Your task to perform on an android device: turn smart compose on in the gmail app Image 0: 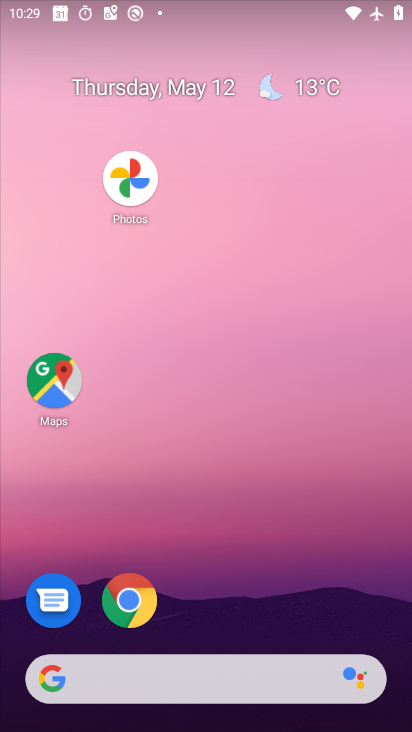
Step 0: drag from (329, 637) to (238, 129)
Your task to perform on an android device: turn smart compose on in the gmail app Image 1: 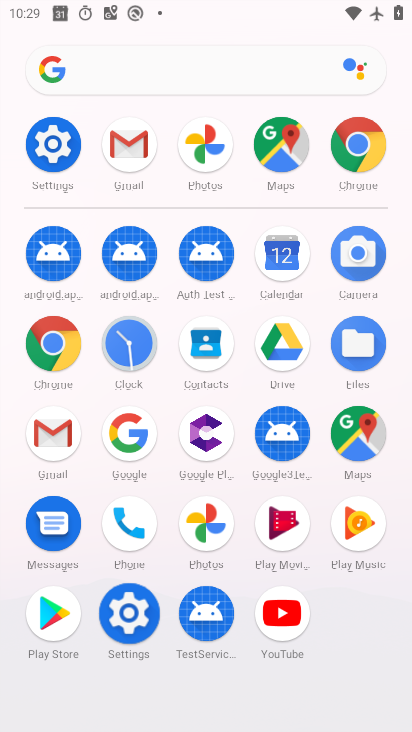
Step 1: click (49, 431)
Your task to perform on an android device: turn smart compose on in the gmail app Image 2: 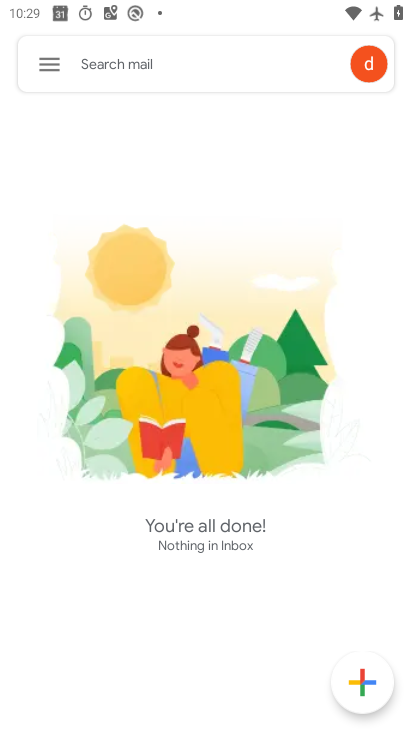
Step 2: click (47, 63)
Your task to perform on an android device: turn smart compose on in the gmail app Image 3: 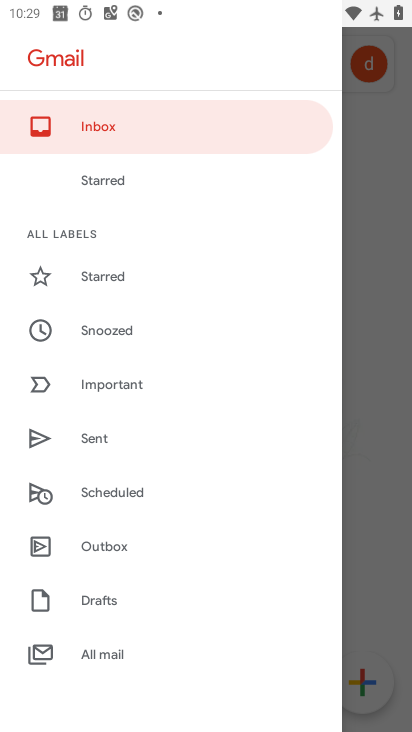
Step 3: click (105, 655)
Your task to perform on an android device: turn smart compose on in the gmail app Image 4: 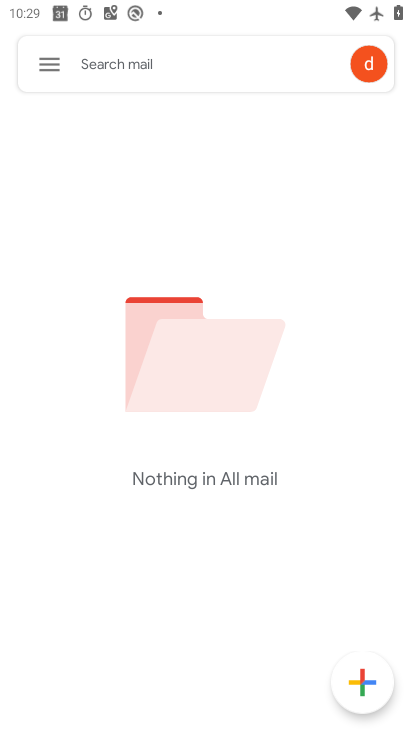
Step 4: click (45, 58)
Your task to perform on an android device: turn smart compose on in the gmail app Image 5: 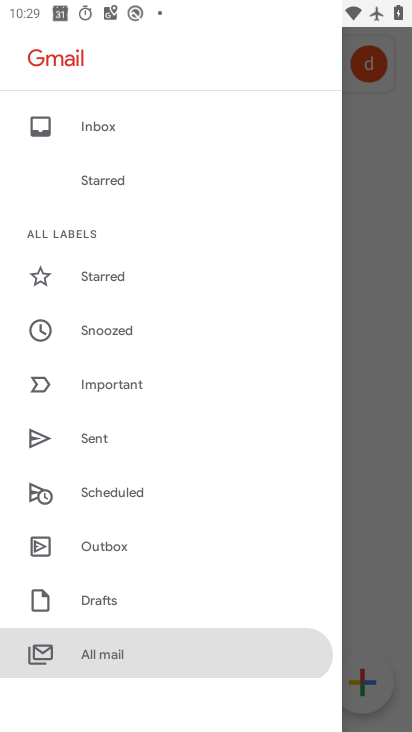
Step 5: drag from (131, 571) to (97, 184)
Your task to perform on an android device: turn smart compose on in the gmail app Image 6: 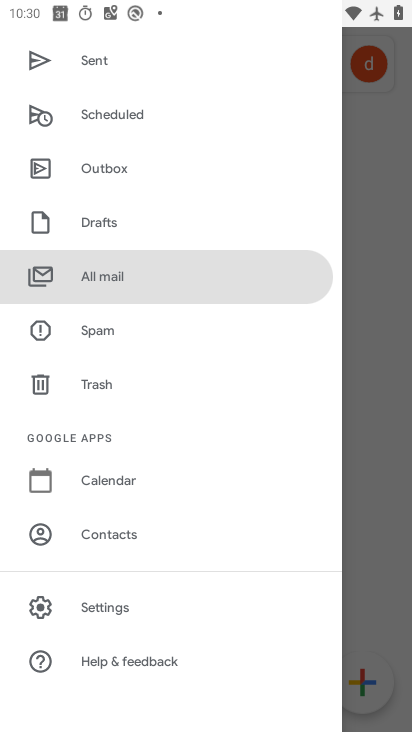
Step 6: click (100, 603)
Your task to perform on an android device: turn smart compose on in the gmail app Image 7: 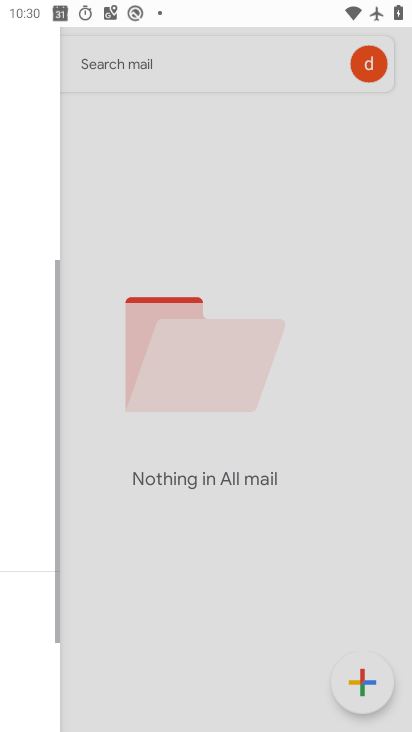
Step 7: click (100, 603)
Your task to perform on an android device: turn smart compose on in the gmail app Image 8: 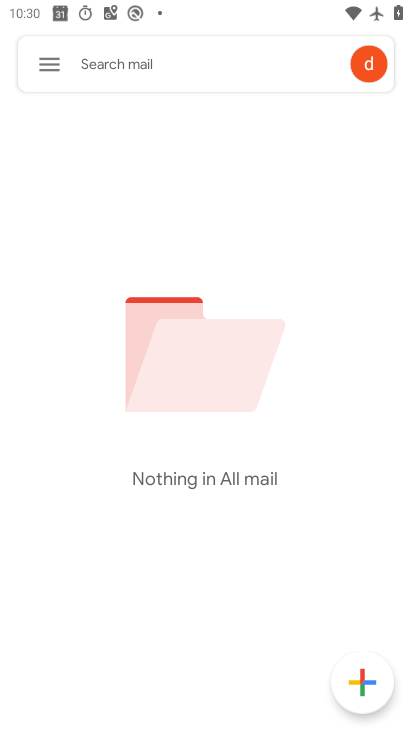
Step 8: click (102, 605)
Your task to perform on an android device: turn smart compose on in the gmail app Image 9: 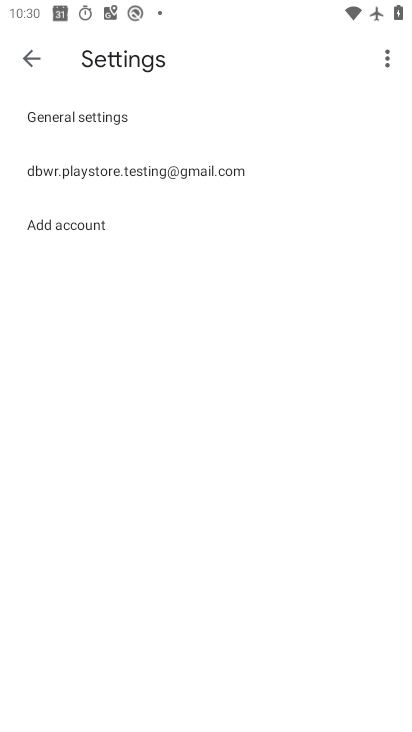
Step 9: click (102, 608)
Your task to perform on an android device: turn smart compose on in the gmail app Image 10: 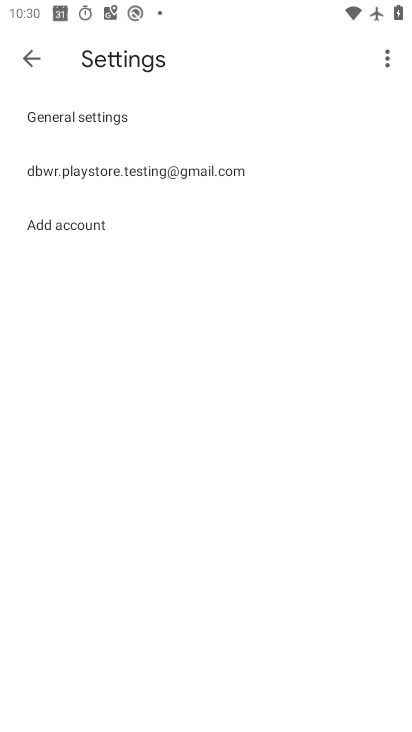
Step 10: click (106, 169)
Your task to perform on an android device: turn smart compose on in the gmail app Image 11: 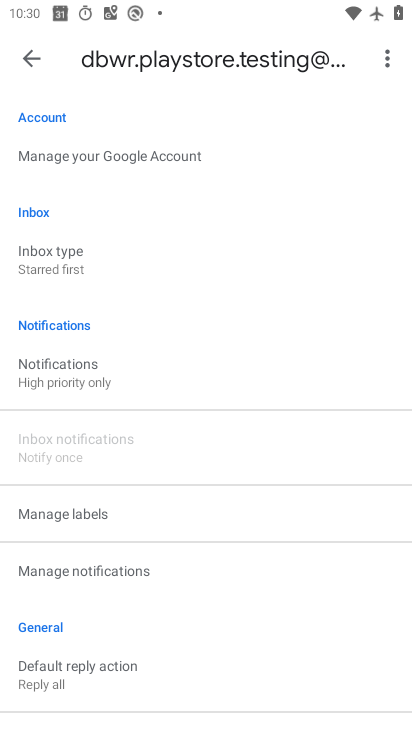
Step 11: drag from (148, 516) to (138, 260)
Your task to perform on an android device: turn smart compose on in the gmail app Image 12: 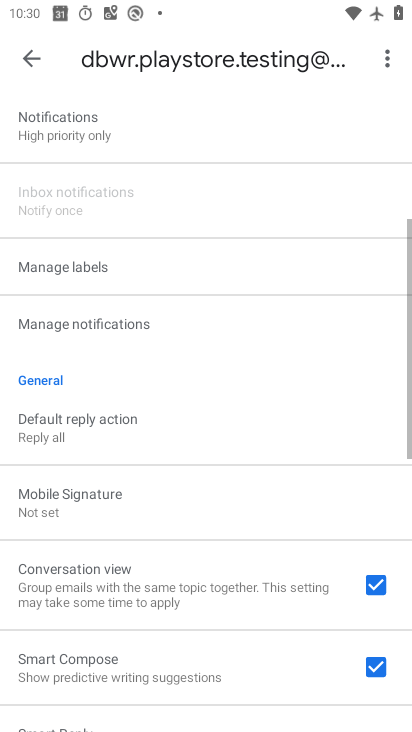
Step 12: drag from (164, 506) to (141, 211)
Your task to perform on an android device: turn smart compose on in the gmail app Image 13: 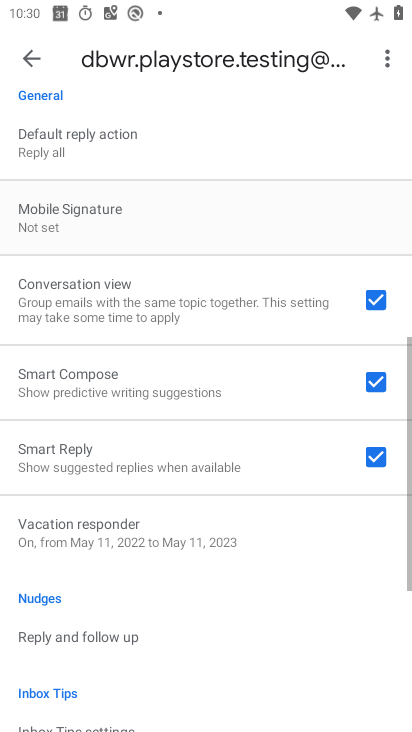
Step 13: drag from (175, 477) to (259, 151)
Your task to perform on an android device: turn smart compose on in the gmail app Image 14: 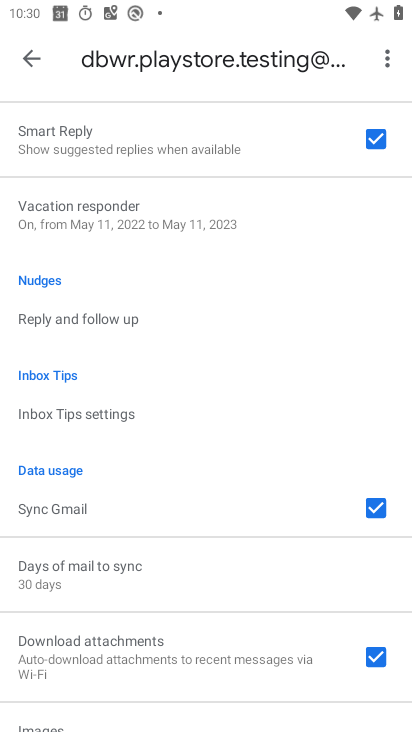
Step 14: drag from (180, 564) to (194, 68)
Your task to perform on an android device: turn smart compose on in the gmail app Image 15: 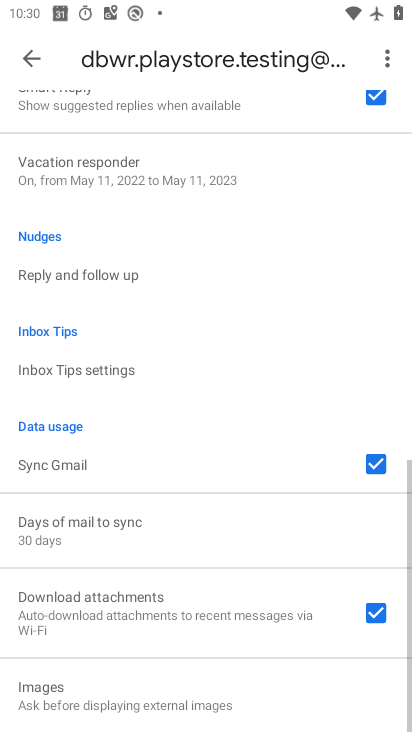
Step 15: drag from (265, 430) to (209, 88)
Your task to perform on an android device: turn smart compose on in the gmail app Image 16: 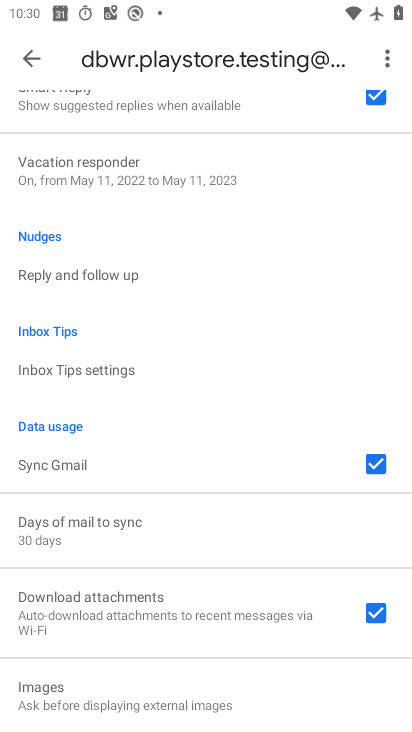
Step 16: drag from (193, 552) to (200, 105)
Your task to perform on an android device: turn smart compose on in the gmail app Image 17: 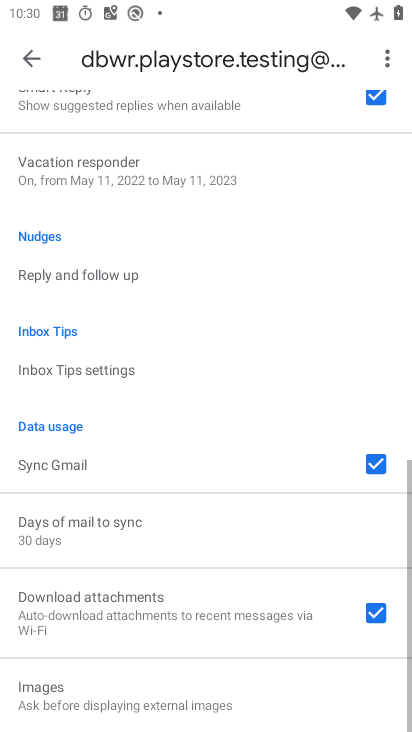
Step 17: drag from (183, 435) to (213, 18)
Your task to perform on an android device: turn smart compose on in the gmail app Image 18: 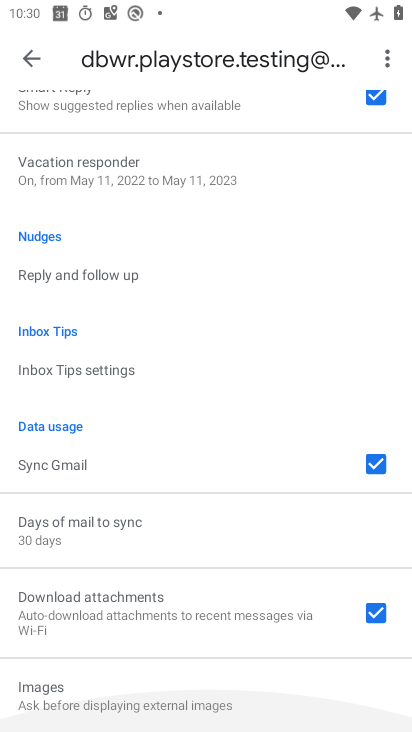
Step 18: drag from (177, 464) to (167, 80)
Your task to perform on an android device: turn smart compose on in the gmail app Image 19: 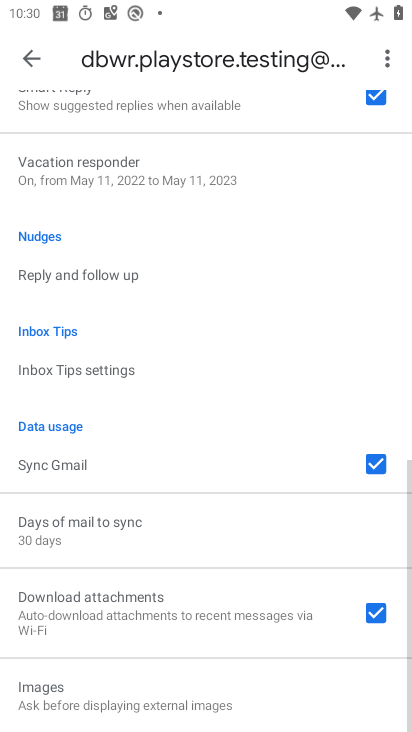
Step 19: drag from (178, 289) to (179, 654)
Your task to perform on an android device: turn smart compose on in the gmail app Image 20: 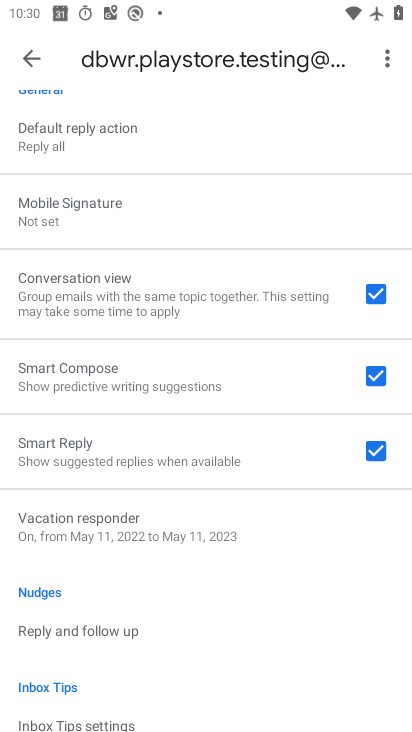
Step 20: click (384, 376)
Your task to perform on an android device: turn smart compose on in the gmail app Image 21: 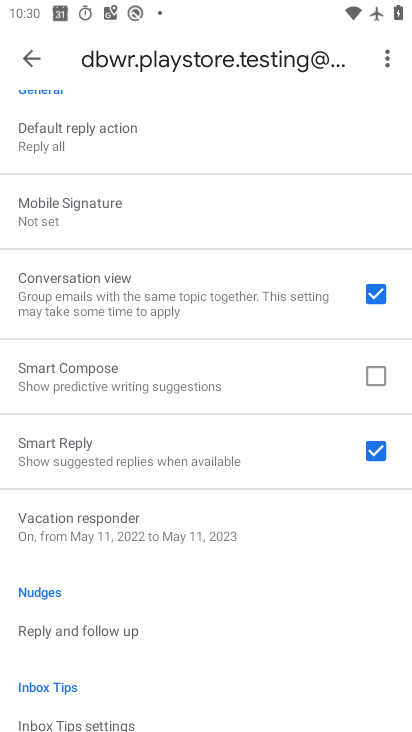
Step 21: click (368, 373)
Your task to perform on an android device: turn smart compose on in the gmail app Image 22: 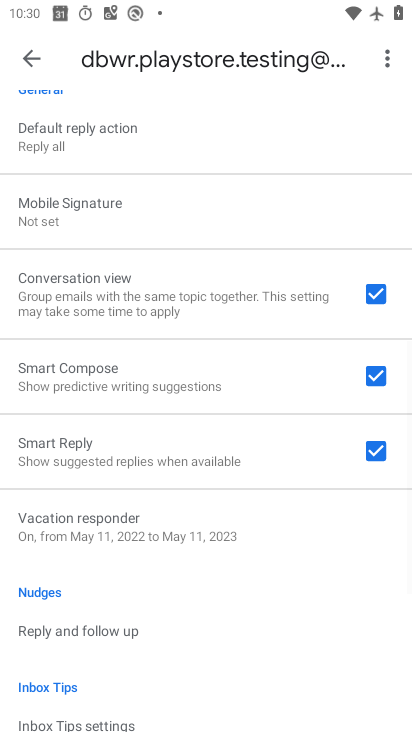
Step 22: task complete